Your task to perform on an android device: change alarm snooze length Image 0: 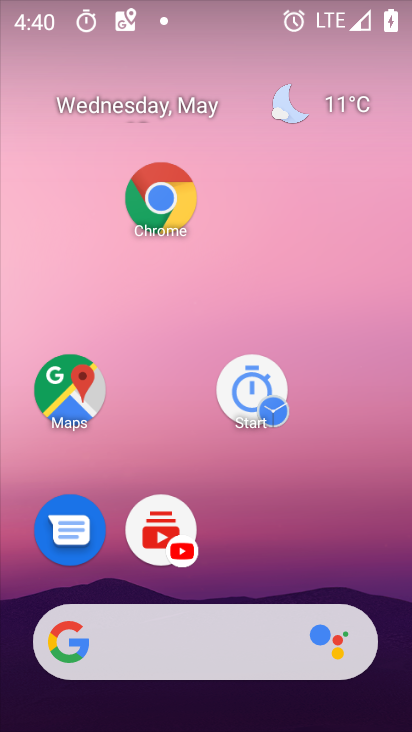
Step 0: drag from (244, 575) to (122, 209)
Your task to perform on an android device: change alarm snooze length Image 1: 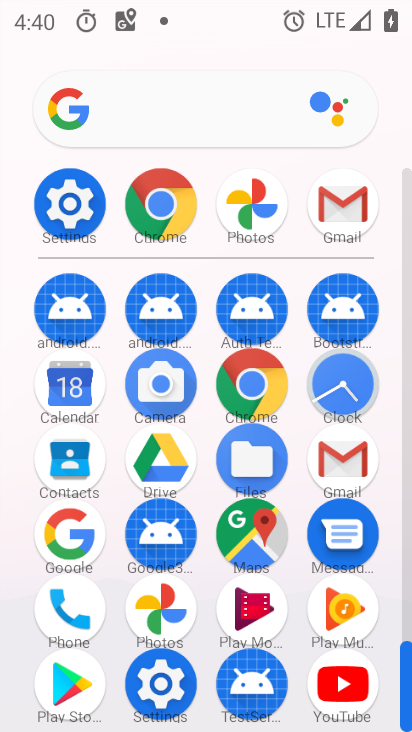
Step 1: click (335, 378)
Your task to perform on an android device: change alarm snooze length Image 2: 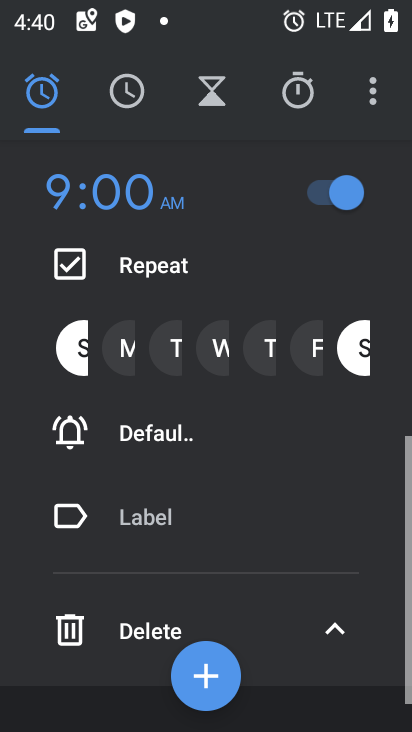
Step 2: click (335, 378)
Your task to perform on an android device: change alarm snooze length Image 3: 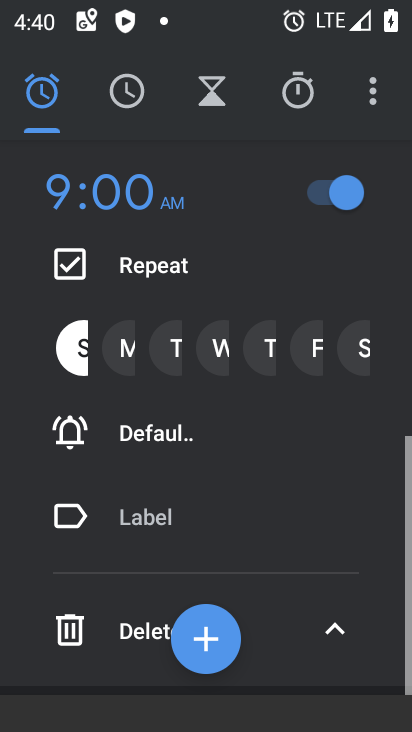
Step 3: click (335, 378)
Your task to perform on an android device: change alarm snooze length Image 4: 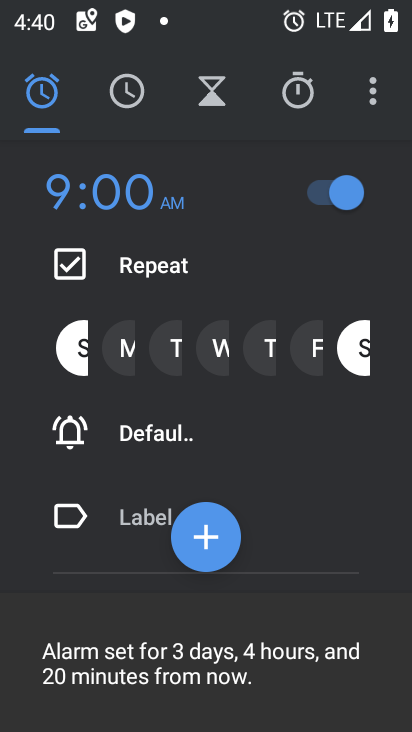
Step 4: click (373, 95)
Your task to perform on an android device: change alarm snooze length Image 5: 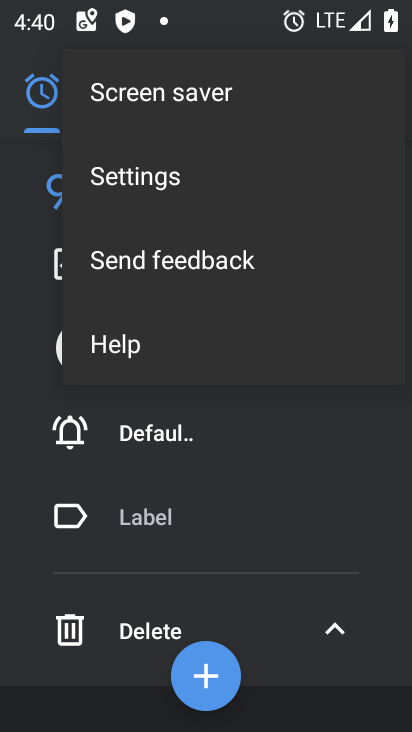
Step 5: click (164, 173)
Your task to perform on an android device: change alarm snooze length Image 6: 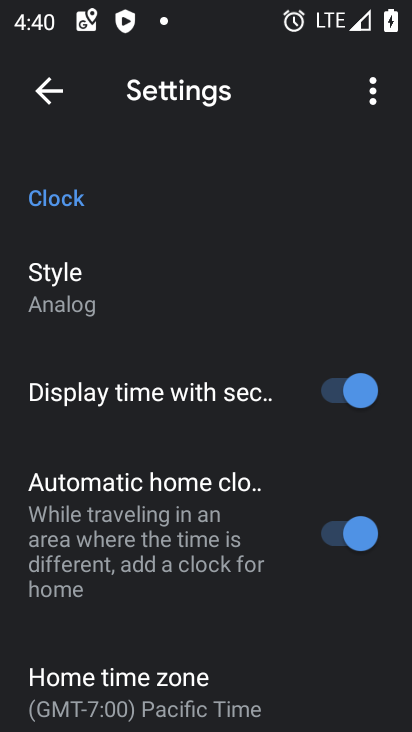
Step 6: drag from (184, 491) to (153, 213)
Your task to perform on an android device: change alarm snooze length Image 7: 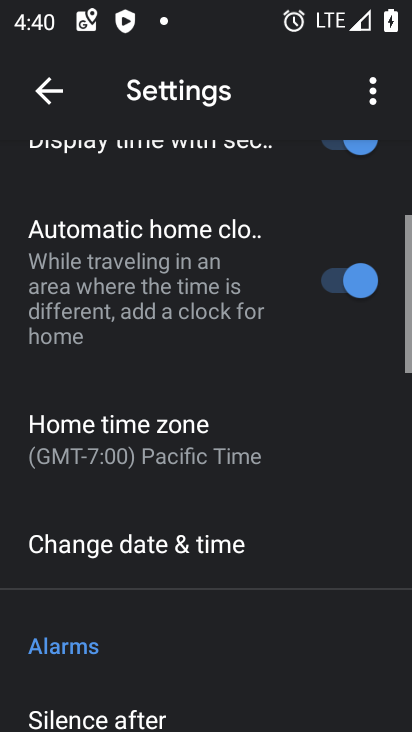
Step 7: drag from (224, 532) to (192, 196)
Your task to perform on an android device: change alarm snooze length Image 8: 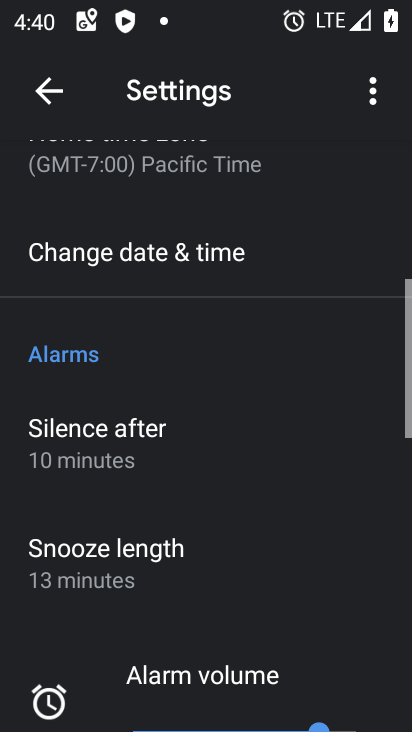
Step 8: drag from (176, 513) to (162, 166)
Your task to perform on an android device: change alarm snooze length Image 9: 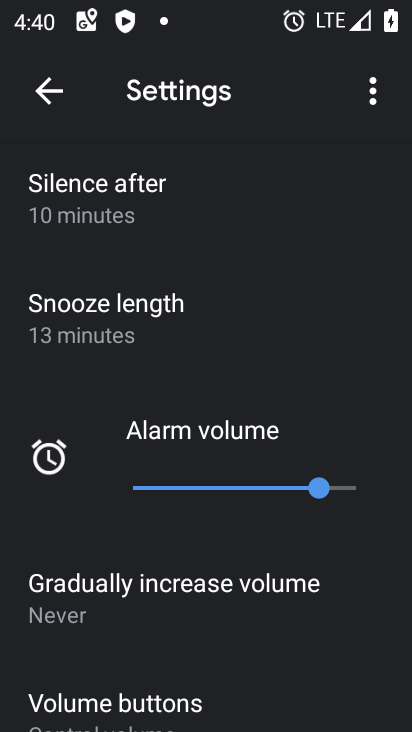
Step 9: click (76, 289)
Your task to perform on an android device: change alarm snooze length Image 10: 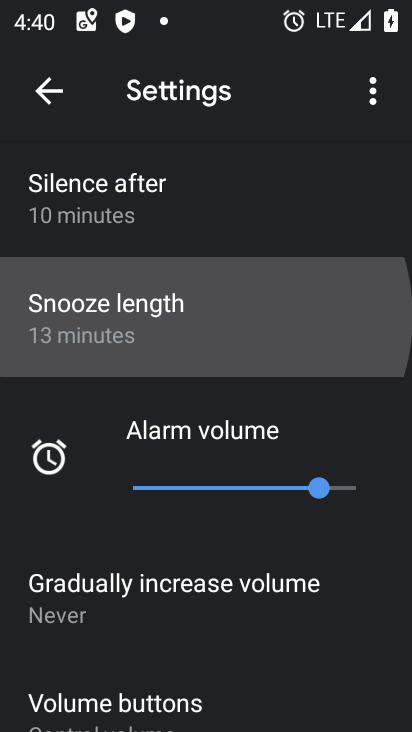
Step 10: click (80, 291)
Your task to perform on an android device: change alarm snooze length Image 11: 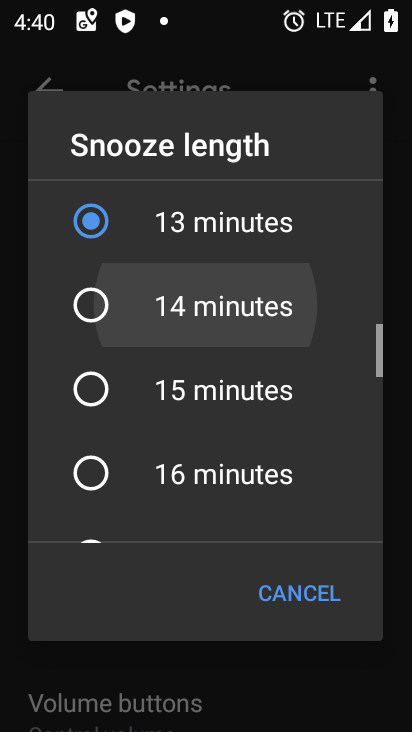
Step 11: click (80, 291)
Your task to perform on an android device: change alarm snooze length Image 12: 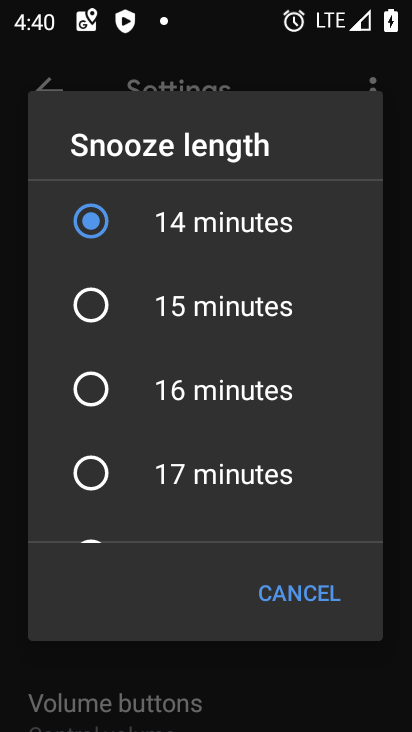
Step 12: click (91, 301)
Your task to perform on an android device: change alarm snooze length Image 13: 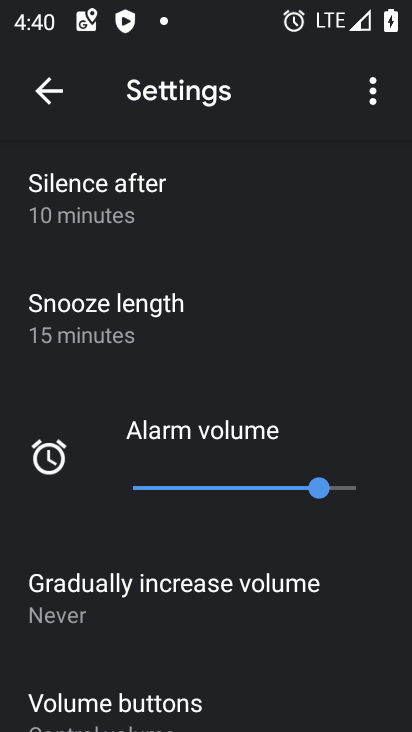
Step 13: task complete